Your task to perform on an android device: Go to wifi settings Image 0: 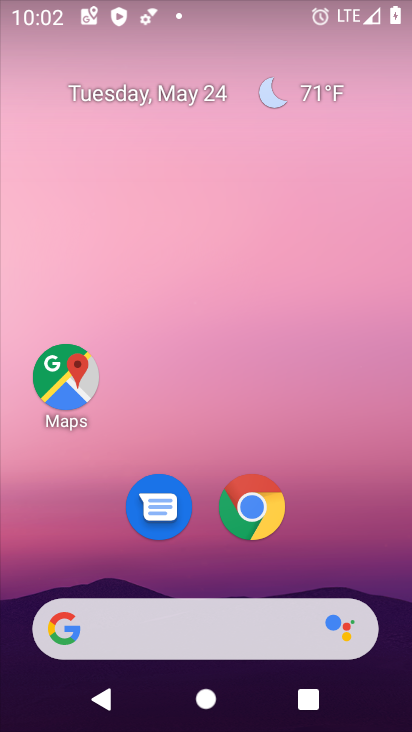
Step 0: drag from (223, 726) to (215, 237)
Your task to perform on an android device: Go to wifi settings Image 1: 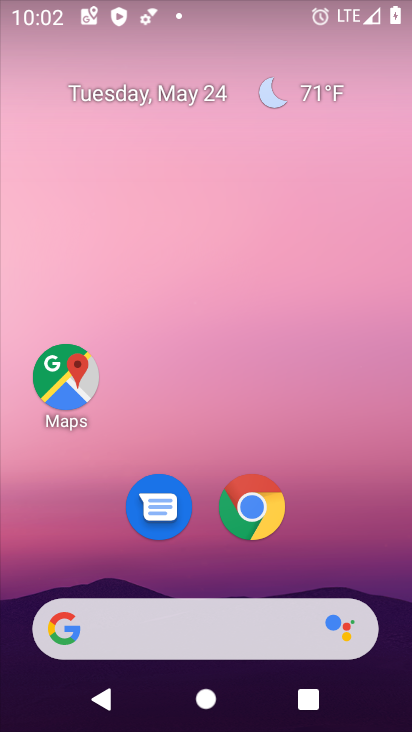
Step 1: drag from (232, 727) to (224, 71)
Your task to perform on an android device: Go to wifi settings Image 2: 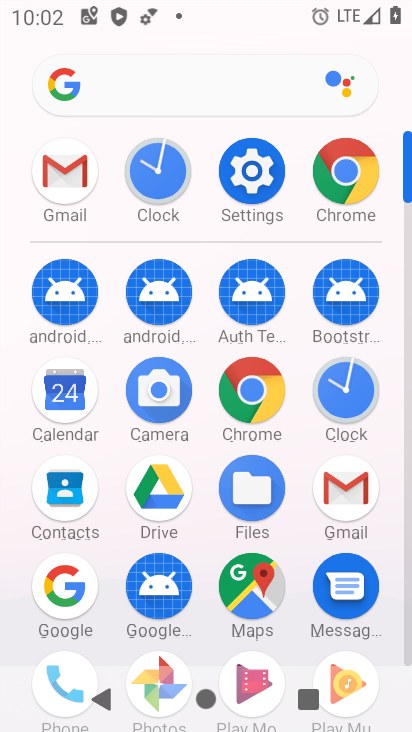
Step 2: click (240, 164)
Your task to perform on an android device: Go to wifi settings Image 3: 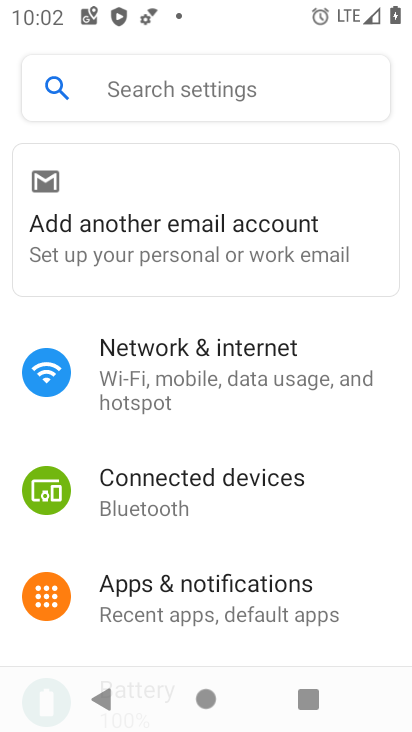
Step 3: click (149, 384)
Your task to perform on an android device: Go to wifi settings Image 4: 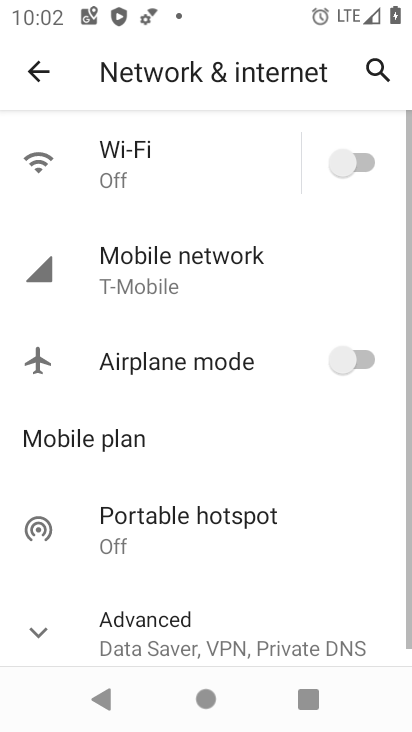
Step 4: click (113, 160)
Your task to perform on an android device: Go to wifi settings Image 5: 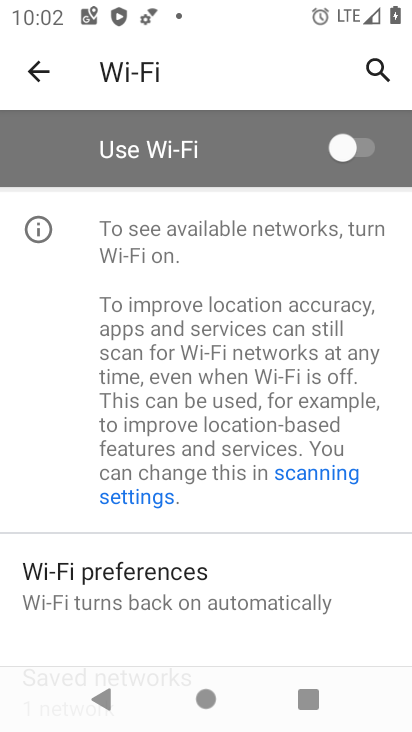
Step 5: task complete